Your task to perform on an android device: Search for sushi restaurants on Maps Image 0: 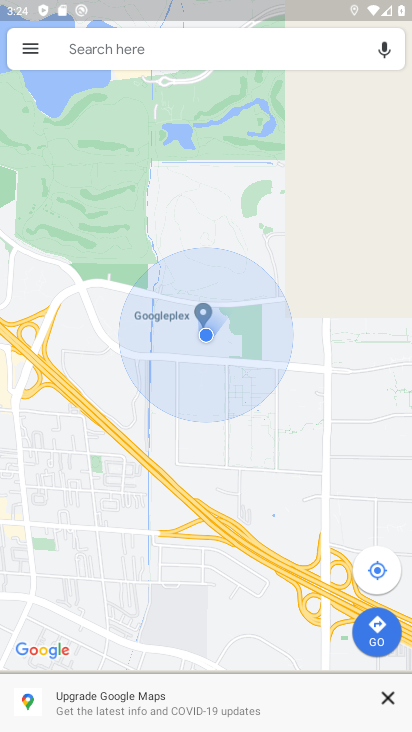
Step 0: press home button
Your task to perform on an android device: Search for sushi restaurants on Maps Image 1: 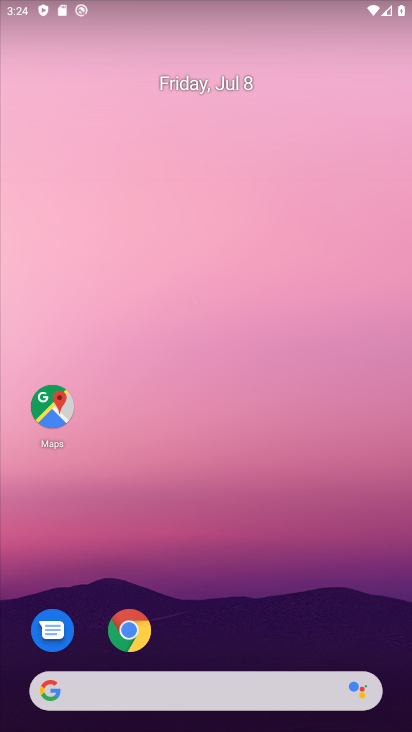
Step 1: click (50, 408)
Your task to perform on an android device: Search for sushi restaurants on Maps Image 2: 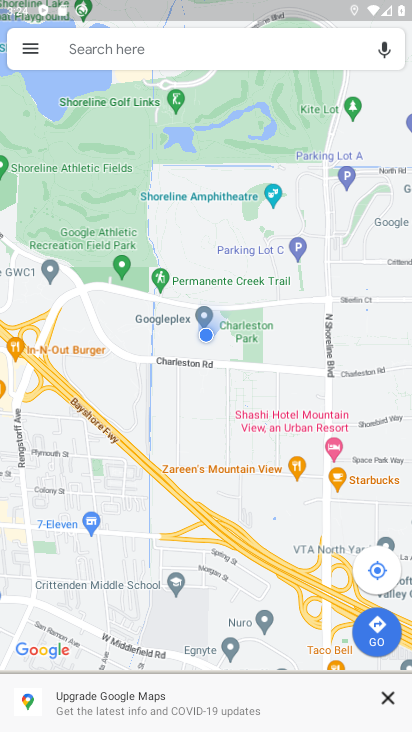
Step 2: click (145, 37)
Your task to perform on an android device: Search for sushi restaurants on Maps Image 3: 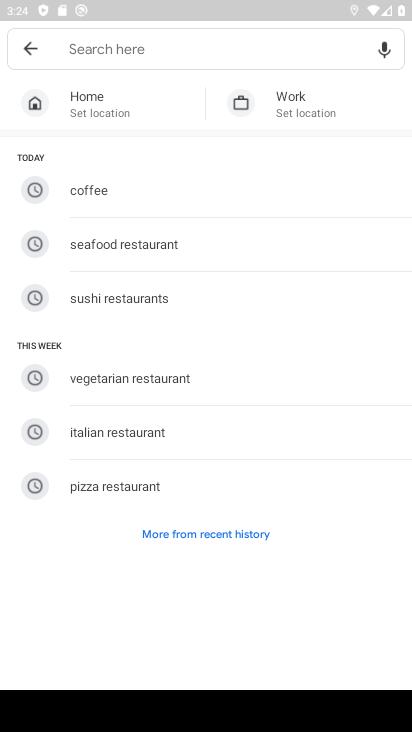
Step 3: type "sushi restaurants"
Your task to perform on an android device: Search for sushi restaurants on Maps Image 4: 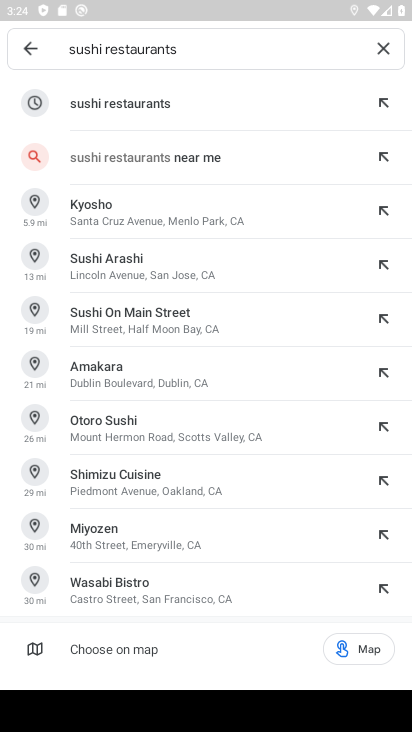
Step 4: click (121, 107)
Your task to perform on an android device: Search for sushi restaurants on Maps Image 5: 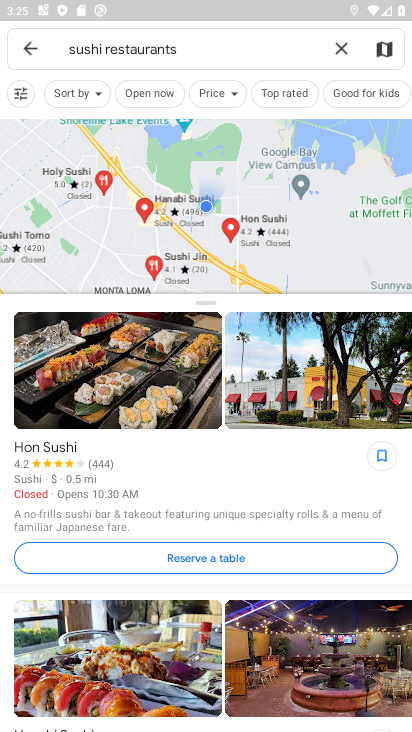
Step 5: task complete